Your task to perform on an android device: Show me popular games on the Play Store Image 0: 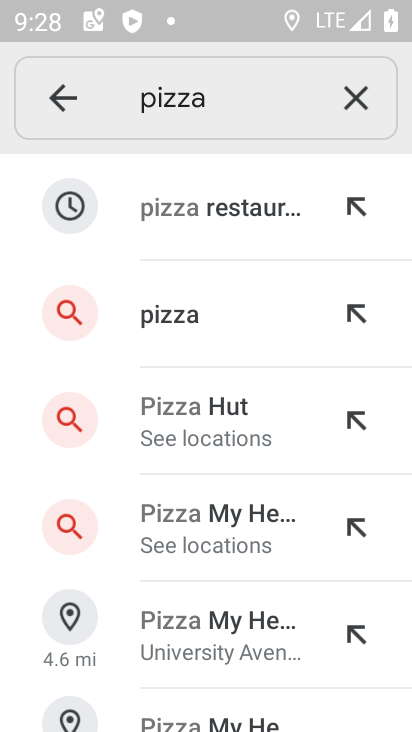
Step 0: press home button
Your task to perform on an android device: Show me popular games on the Play Store Image 1: 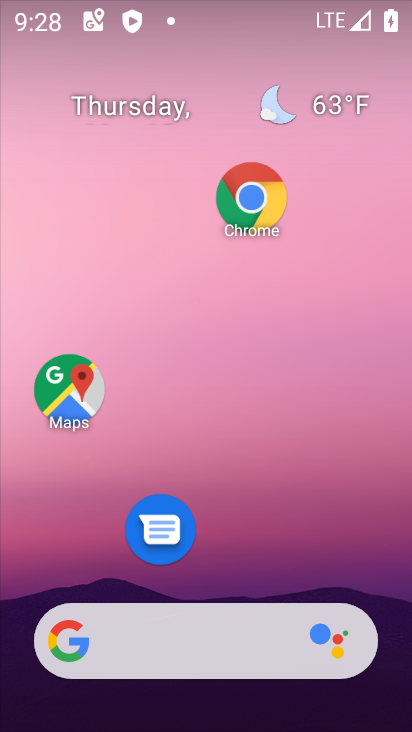
Step 1: drag from (295, 688) to (345, 450)
Your task to perform on an android device: Show me popular games on the Play Store Image 2: 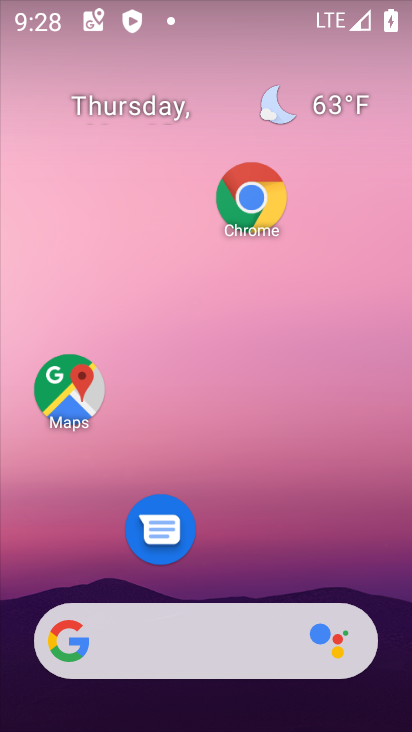
Step 2: drag from (316, 590) to (324, 108)
Your task to perform on an android device: Show me popular games on the Play Store Image 3: 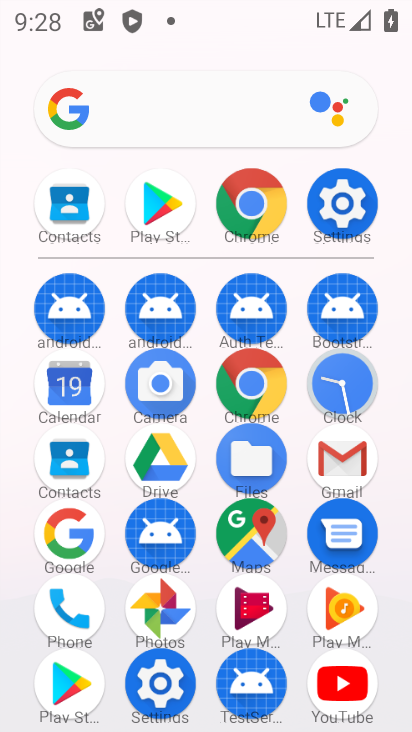
Step 3: click (77, 681)
Your task to perform on an android device: Show me popular games on the Play Store Image 4: 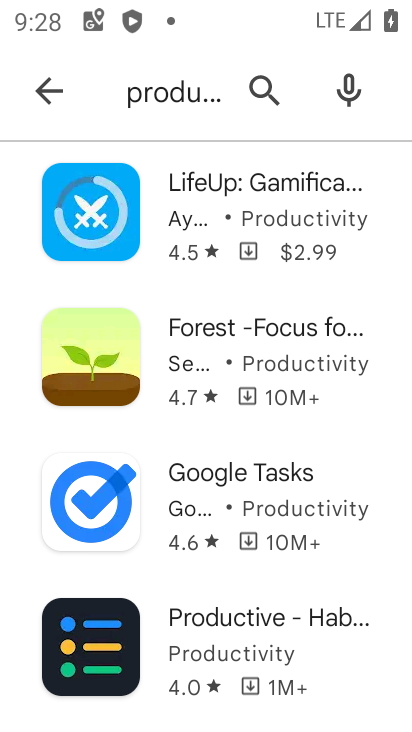
Step 4: click (56, 88)
Your task to perform on an android device: Show me popular games on the Play Store Image 5: 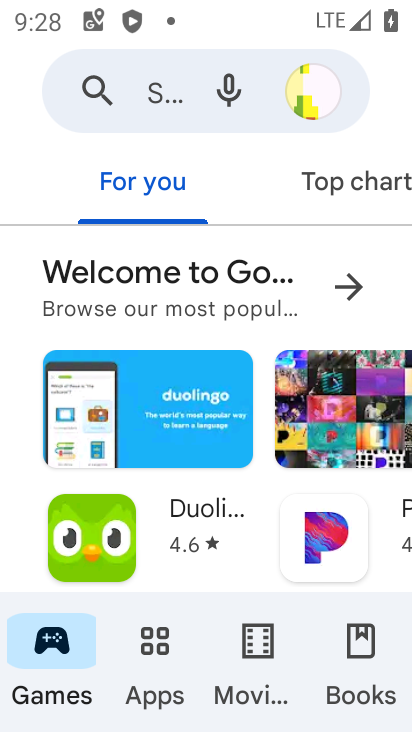
Step 5: task complete